Your task to perform on an android device: open app "Microsoft Outlook" (install if not already installed), go to login, and select forgot password Image 0: 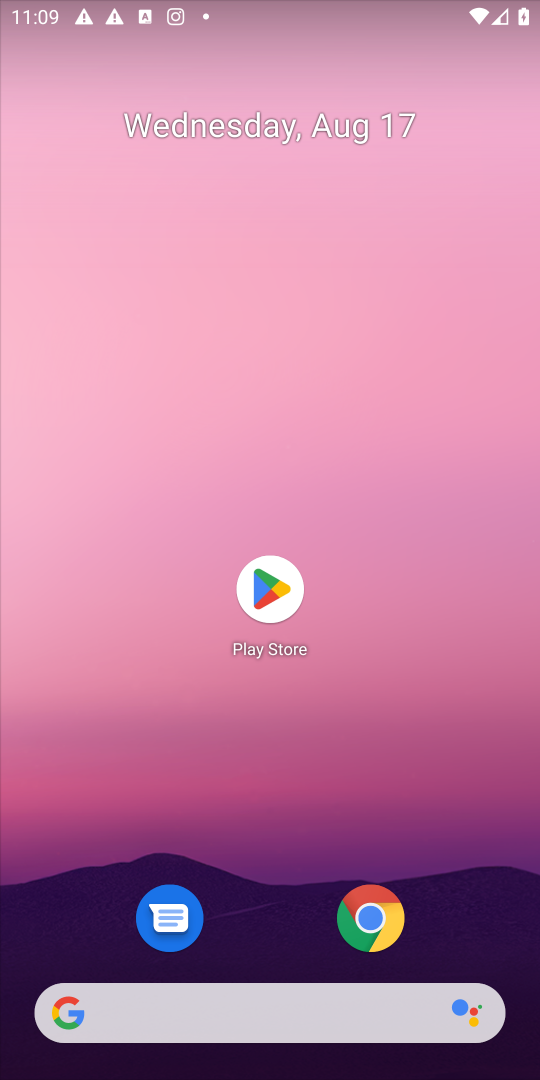
Step 0: click (276, 583)
Your task to perform on an android device: open app "Microsoft Outlook" (install if not already installed), go to login, and select forgot password Image 1: 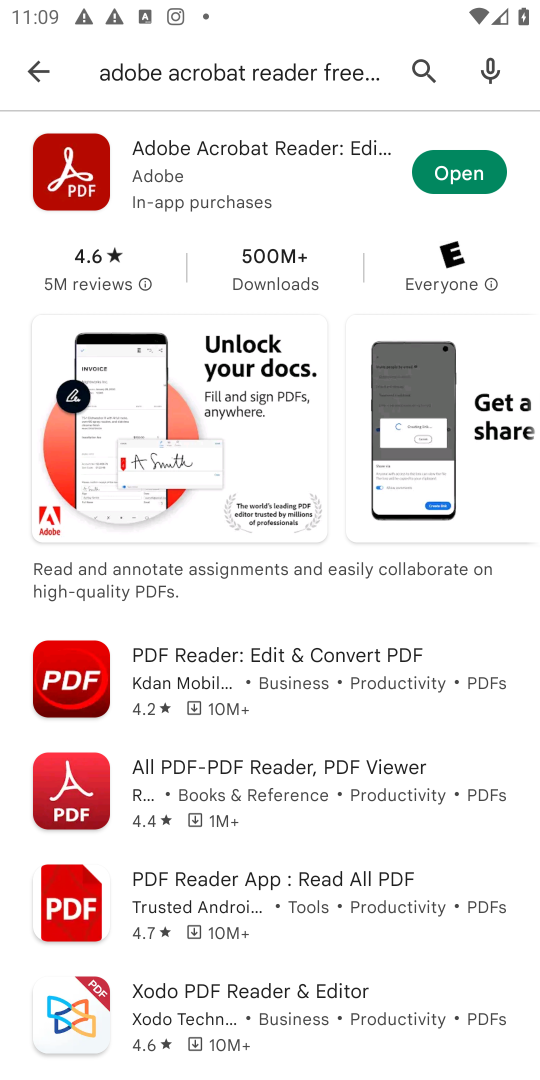
Step 1: click (418, 66)
Your task to perform on an android device: open app "Microsoft Outlook" (install if not already installed), go to login, and select forgot password Image 2: 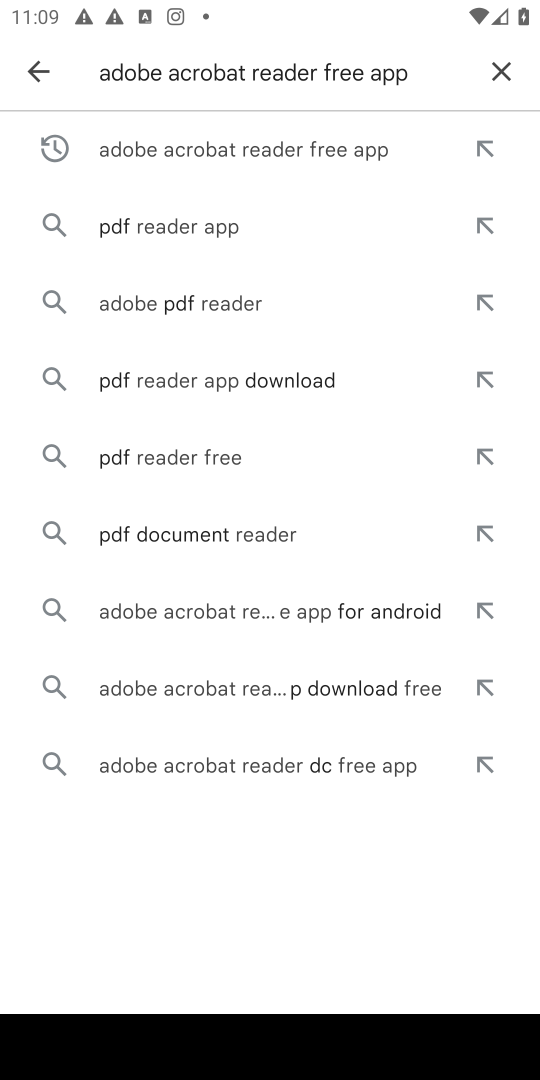
Step 2: click (487, 59)
Your task to perform on an android device: open app "Microsoft Outlook" (install if not already installed), go to login, and select forgot password Image 3: 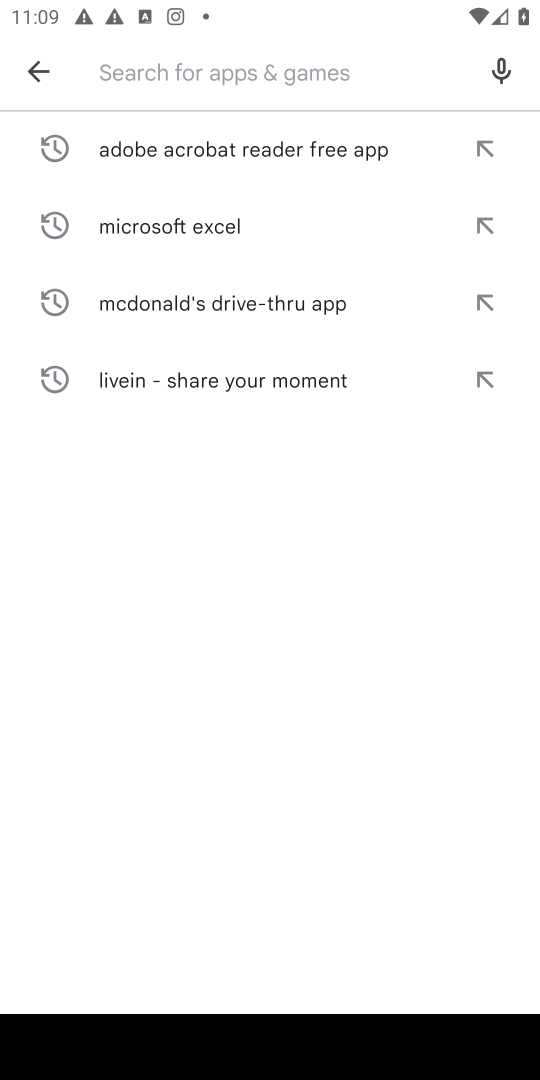
Step 3: type "Microsoft Outlook"
Your task to perform on an android device: open app "Microsoft Outlook" (install if not already installed), go to login, and select forgot password Image 4: 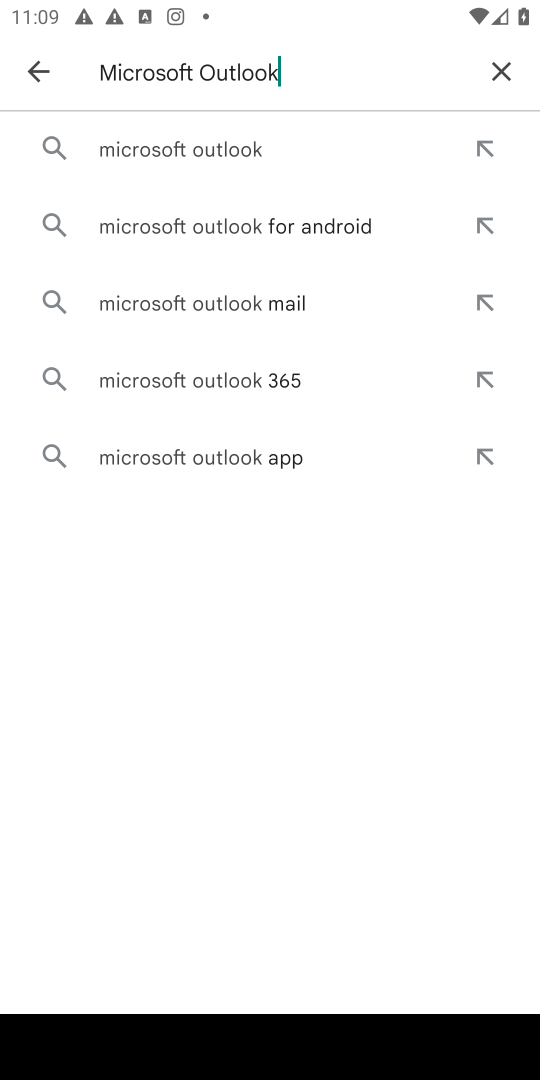
Step 4: click (211, 137)
Your task to perform on an android device: open app "Microsoft Outlook" (install if not already installed), go to login, and select forgot password Image 5: 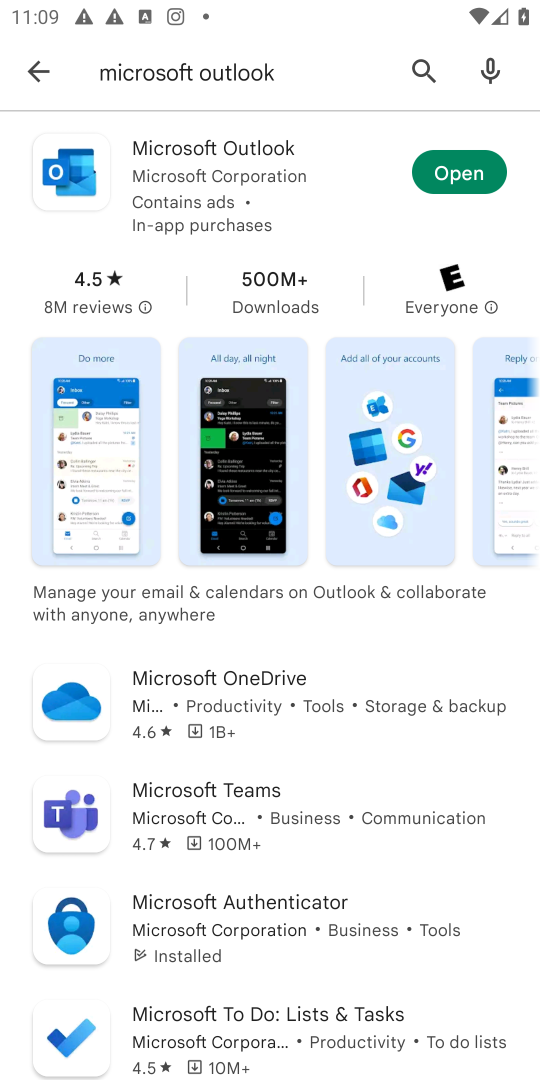
Step 5: click (459, 175)
Your task to perform on an android device: open app "Microsoft Outlook" (install if not already installed), go to login, and select forgot password Image 6: 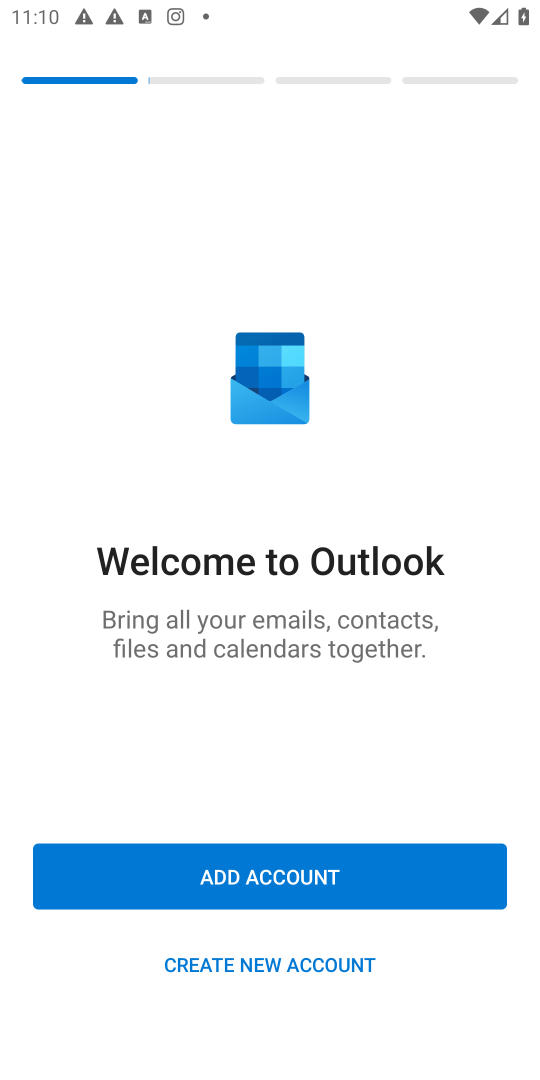
Step 6: task complete